Your task to perform on an android device: refresh tabs in the chrome app Image 0: 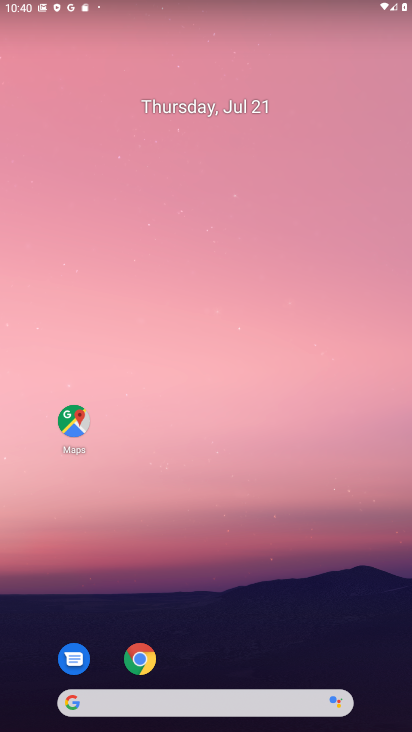
Step 0: click (137, 657)
Your task to perform on an android device: refresh tabs in the chrome app Image 1: 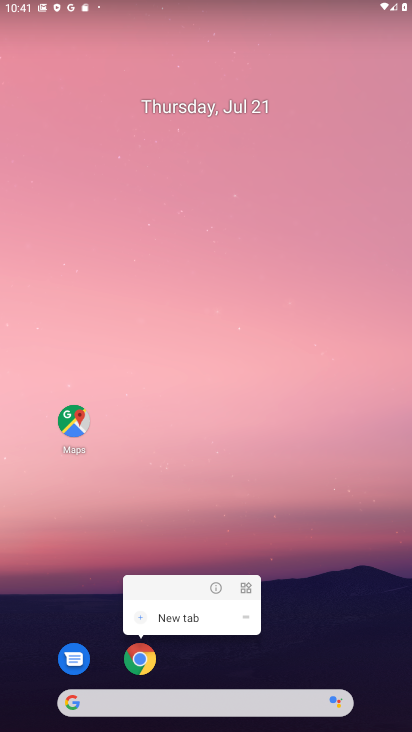
Step 1: click (141, 657)
Your task to perform on an android device: refresh tabs in the chrome app Image 2: 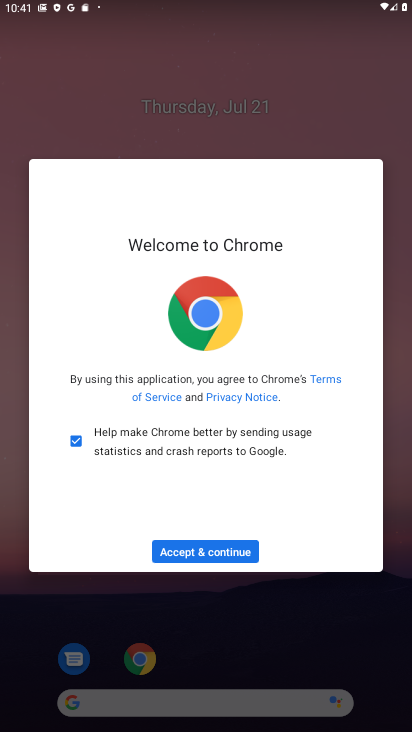
Step 2: click (193, 557)
Your task to perform on an android device: refresh tabs in the chrome app Image 3: 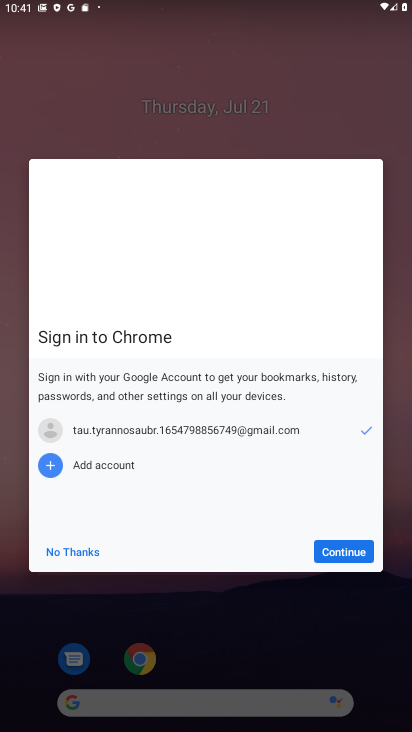
Step 3: click (86, 558)
Your task to perform on an android device: refresh tabs in the chrome app Image 4: 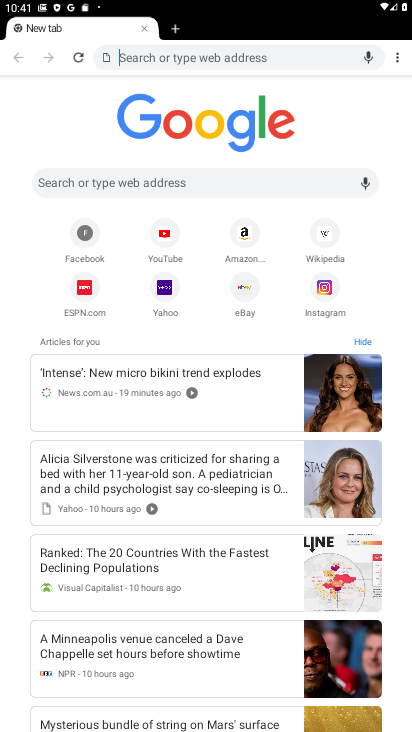
Step 4: click (80, 56)
Your task to perform on an android device: refresh tabs in the chrome app Image 5: 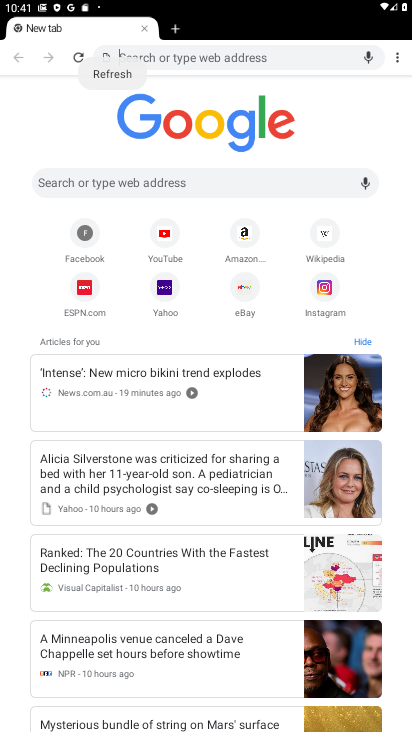
Step 5: click (80, 56)
Your task to perform on an android device: refresh tabs in the chrome app Image 6: 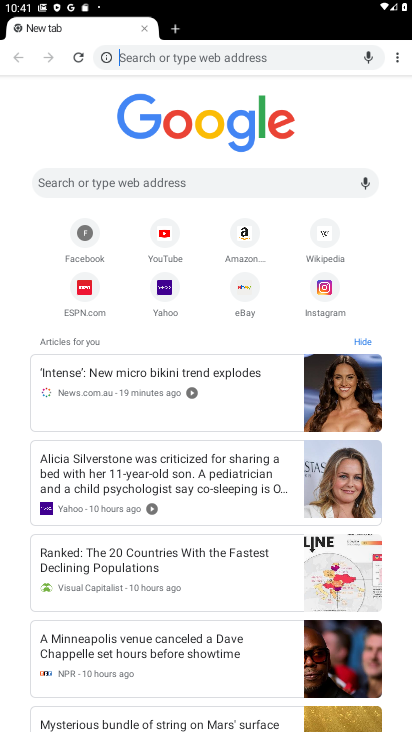
Step 6: task complete